Your task to perform on an android device: set an alarm Image 0: 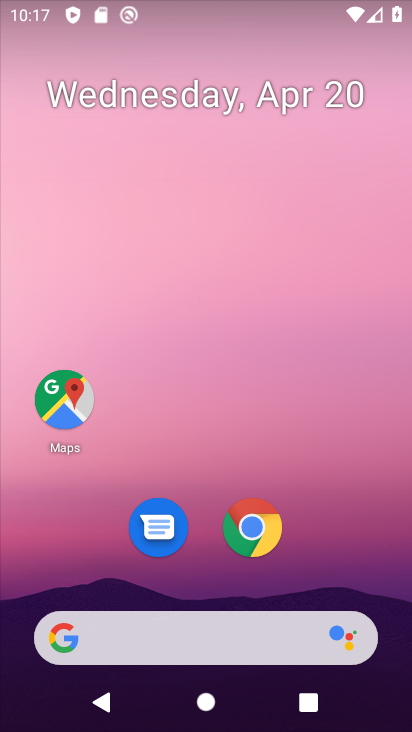
Step 0: drag from (197, 494) to (273, 336)
Your task to perform on an android device: set an alarm Image 1: 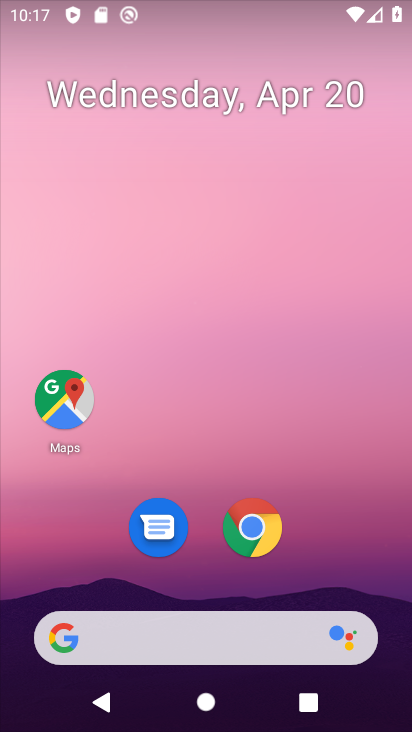
Step 1: drag from (212, 562) to (392, 1)
Your task to perform on an android device: set an alarm Image 2: 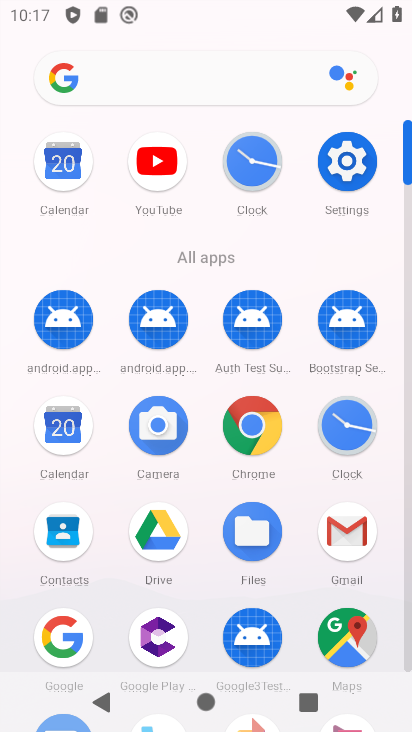
Step 2: click (251, 158)
Your task to perform on an android device: set an alarm Image 3: 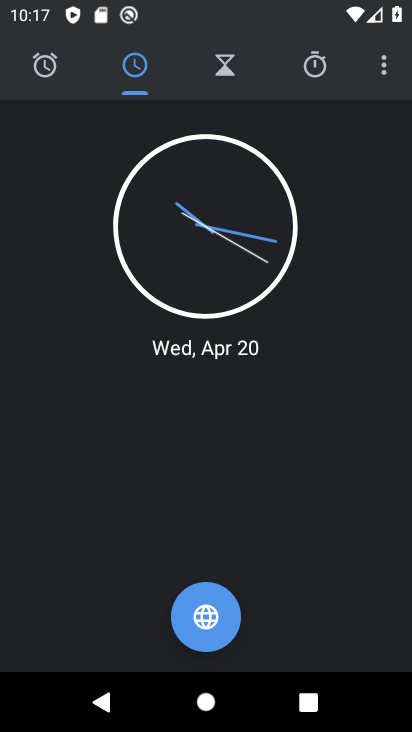
Step 3: click (49, 75)
Your task to perform on an android device: set an alarm Image 4: 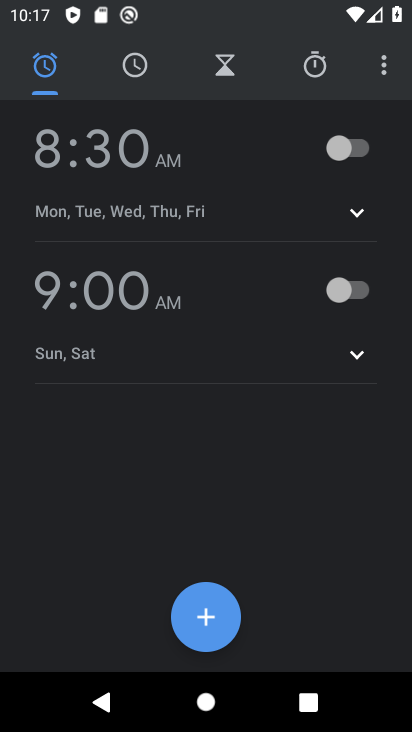
Step 4: click (373, 288)
Your task to perform on an android device: set an alarm Image 5: 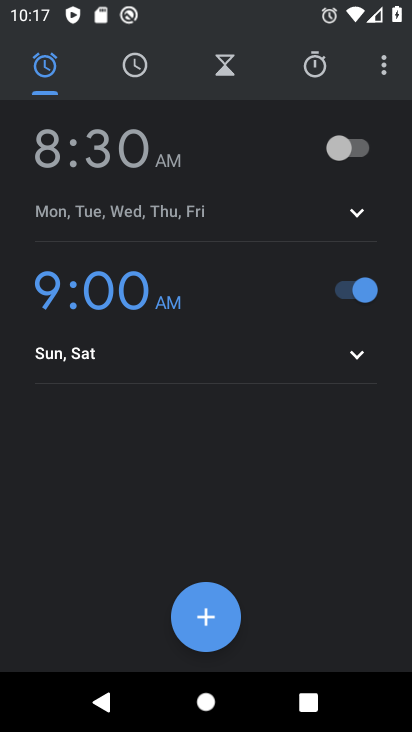
Step 5: task complete